Your task to perform on an android device: Check the weather Image 0: 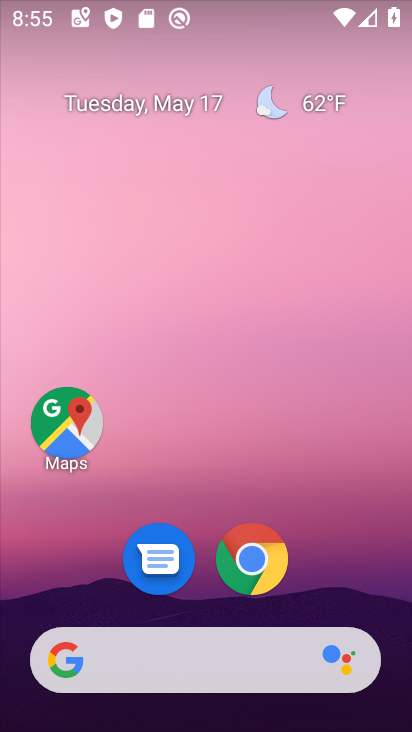
Step 0: click (304, 114)
Your task to perform on an android device: Check the weather Image 1: 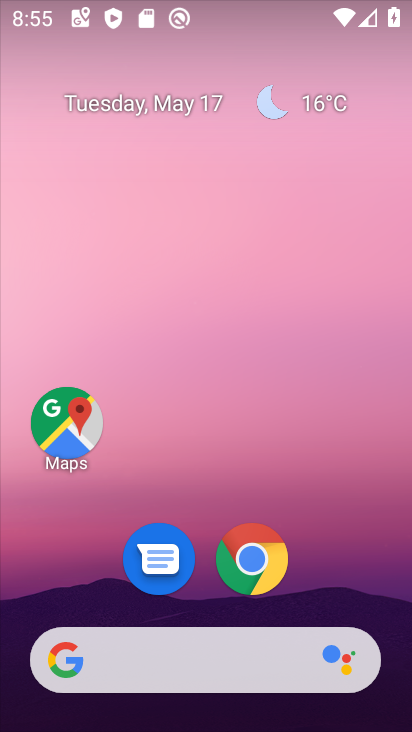
Step 1: click (254, 101)
Your task to perform on an android device: Check the weather Image 2: 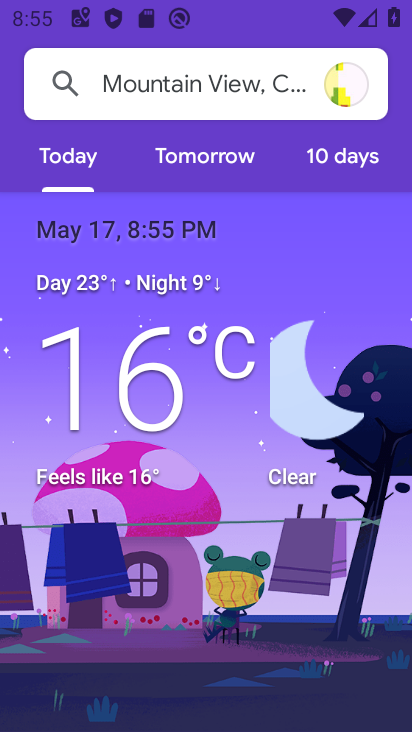
Step 2: task complete